Your task to perform on an android device: turn on wifi Image 0: 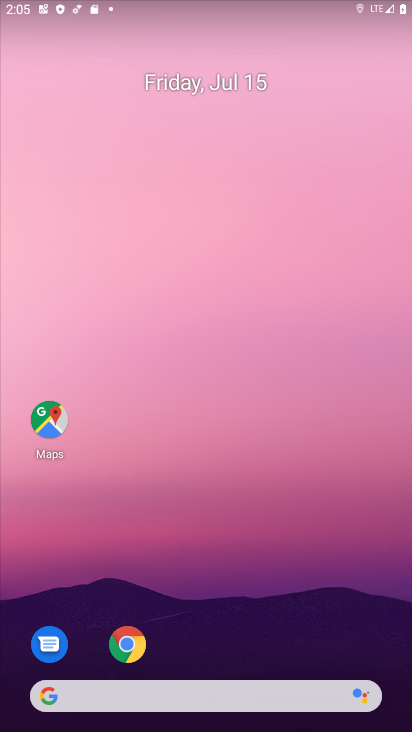
Step 0: drag from (169, 2) to (257, 619)
Your task to perform on an android device: turn on wifi Image 1: 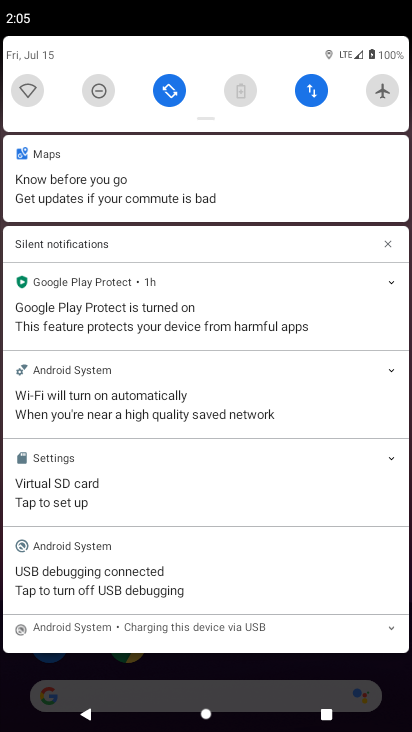
Step 1: click (26, 84)
Your task to perform on an android device: turn on wifi Image 2: 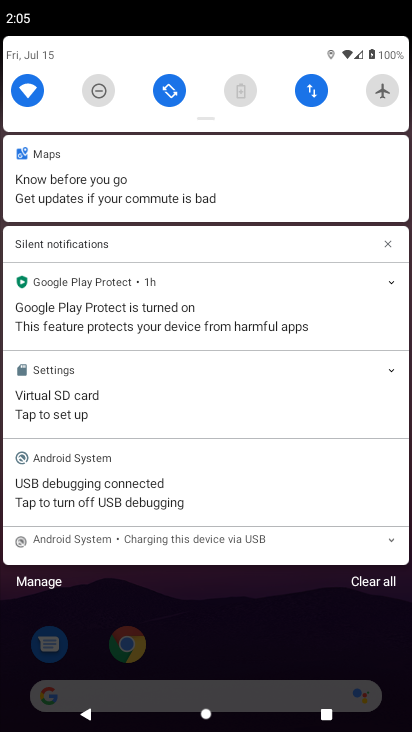
Step 2: task complete